Your task to perform on an android device: Go to accessibility settings Image 0: 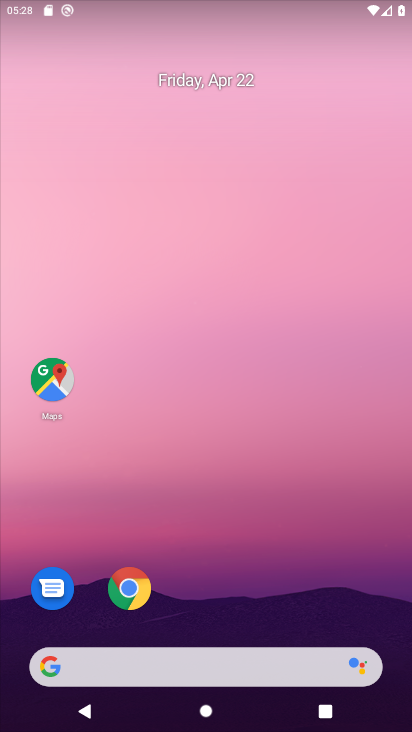
Step 0: drag from (221, 626) to (264, 7)
Your task to perform on an android device: Go to accessibility settings Image 1: 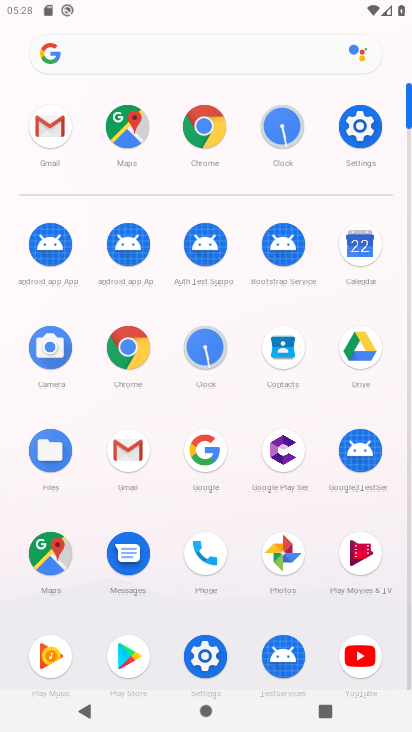
Step 1: click (369, 123)
Your task to perform on an android device: Go to accessibility settings Image 2: 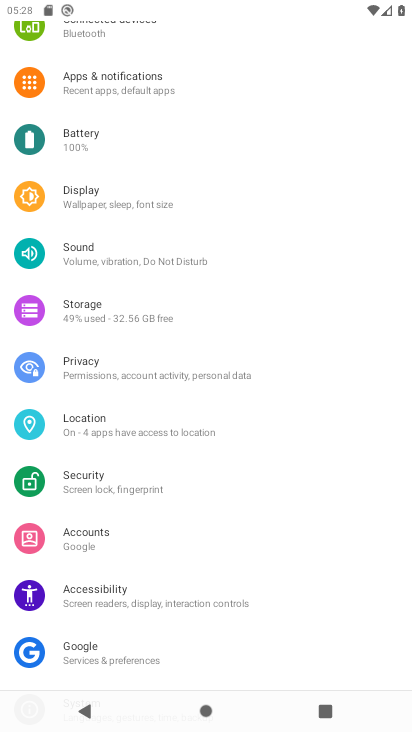
Step 2: click (128, 591)
Your task to perform on an android device: Go to accessibility settings Image 3: 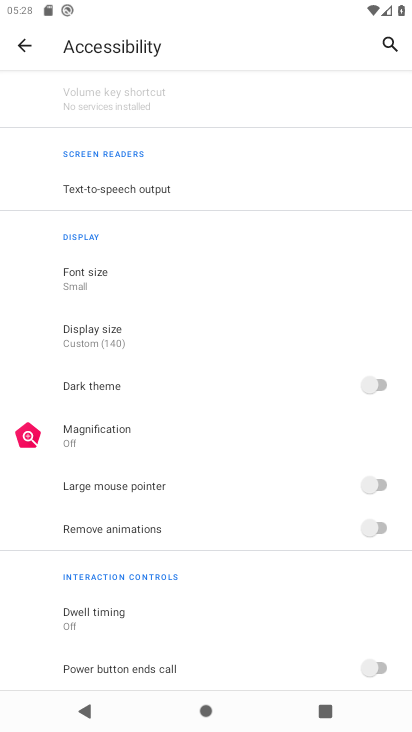
Step 3: task complete